Your task to perform on an android device: Open the web browser Image 0: 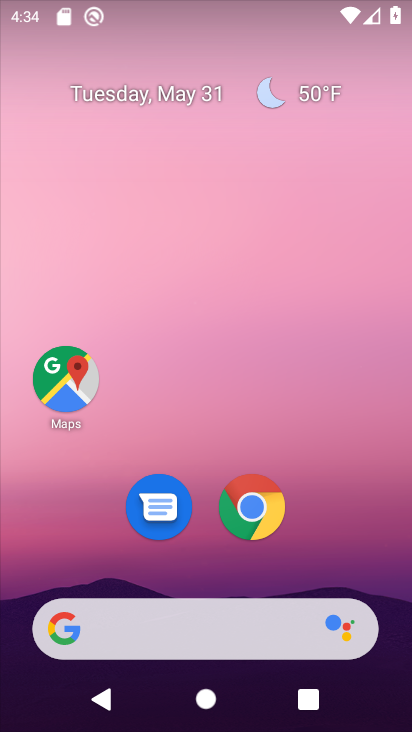
Step 0: click (192, 627)
Your task to perform on an android device: Open the web browser Image 1: 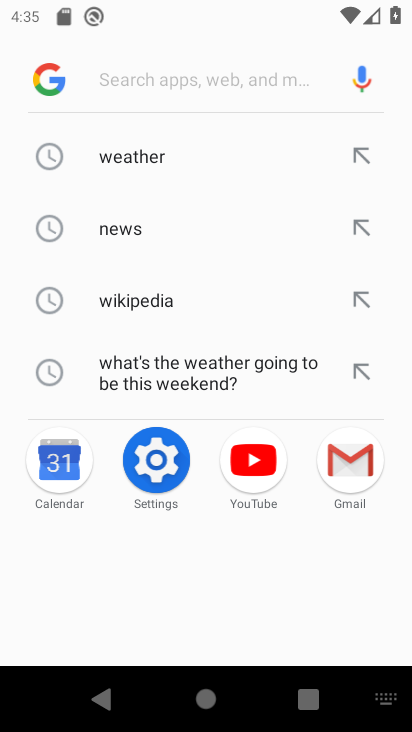
Step 1: task complete